Your task to perform on an android device: turn on translation in the chrome app Image 0: 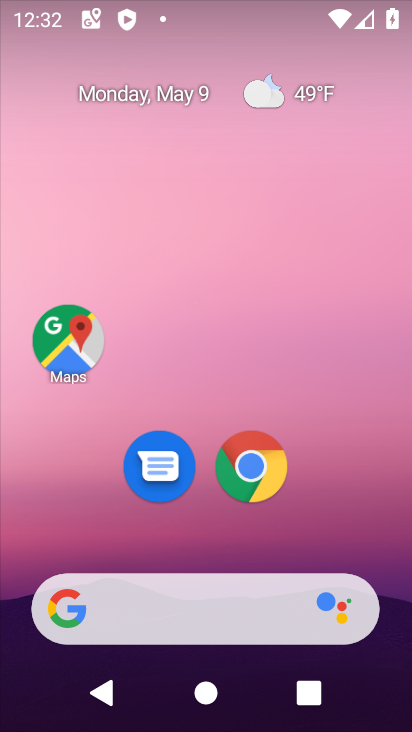
Step 0: drag from (377, 531) to (296, 153)
Your task to perform on an android device: turn on translation in the chrome app Image 1: 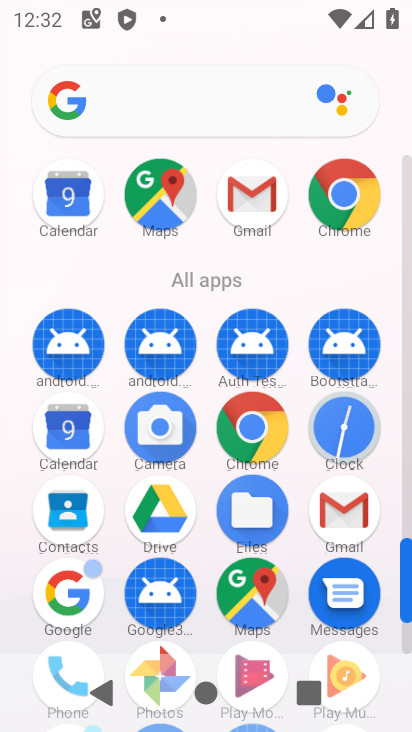
Step 1: click (363, 186)
Your task to perform on an android device: turn on translation in the chrome app Image 2: 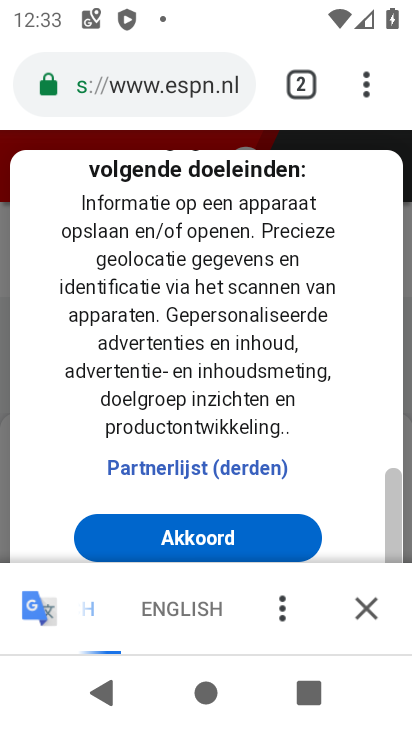
Step 2: drag from (363, 92) to (246, 528)
Your task to perform on an android device: turn on translation in the chrome app Image 3: 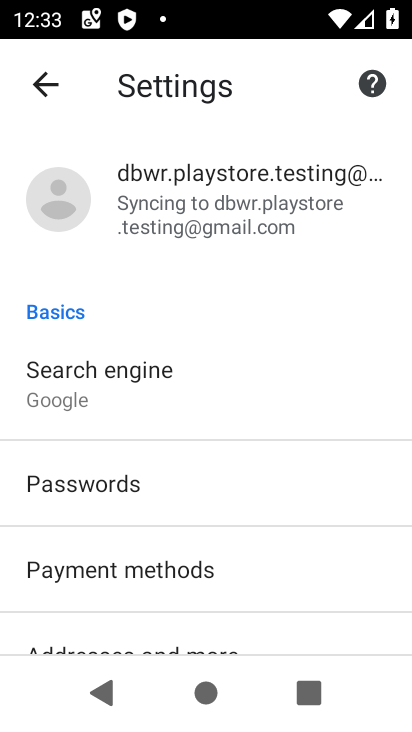
Step 3: drag from (321, 598) to (268, 178)
Your task to perform on an android device: turn on translation in the chrome app Image 4: 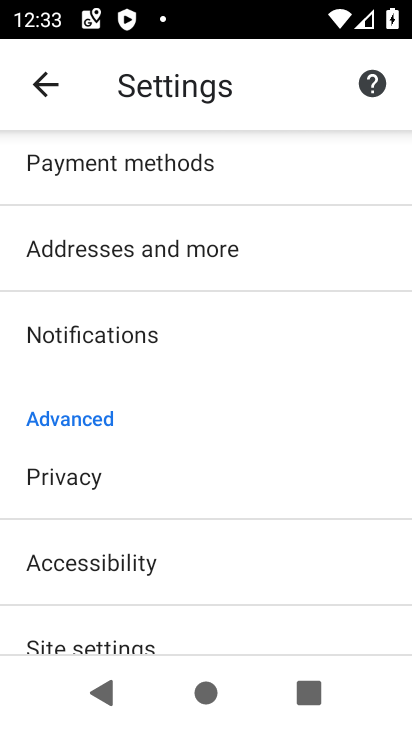
Step 4: drag from (298, 549) to (268, 270)
Your task to perform on an android device: turn on translation in the chrome app Image 5: 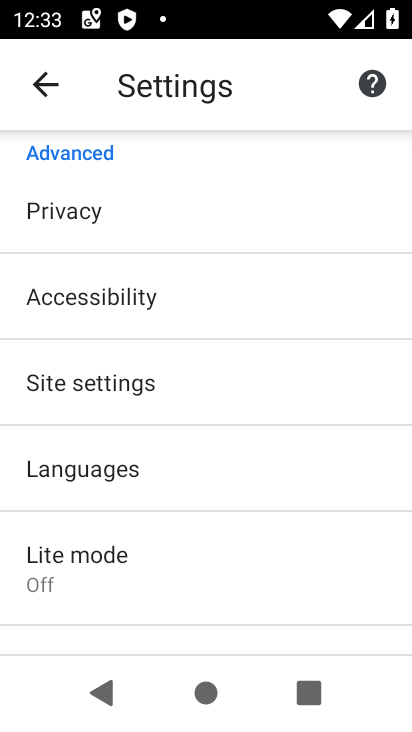
Step 5: drag from (249, 387) to (160, 526)
Your task to perform on an android device: turn on translation in the chrome app Image 6: 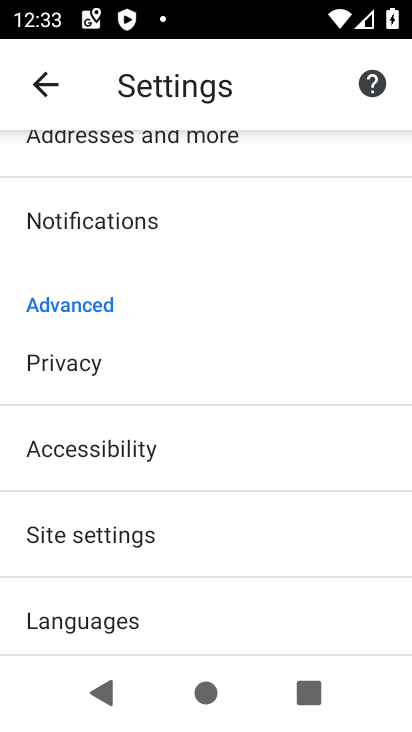
Step 6: click (181, 624)
Your task to perform on an android device: turn on translation in the chrome app Image 7: 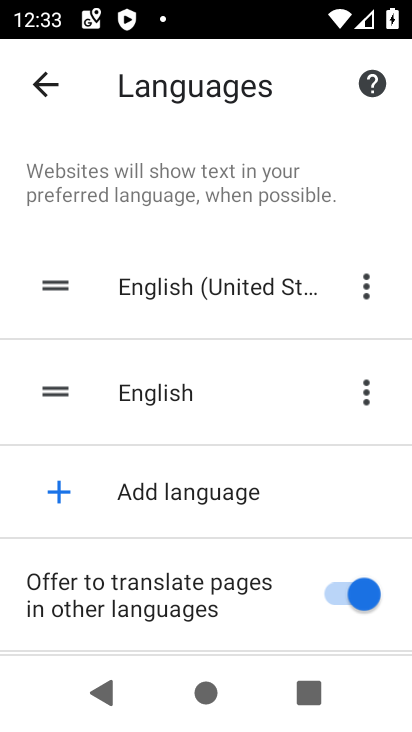
Step 7: task complete